Your task to perform on an android device: set the stopwatch Image 0: 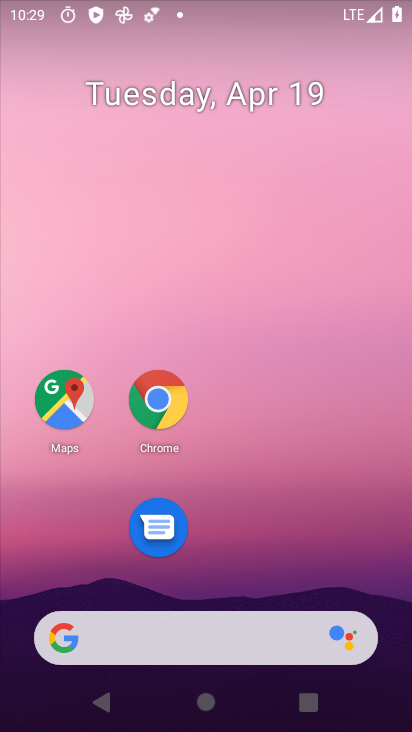
Step 0: drag from (263, 669) to (322, 226)
Your task to perform on an android device: set the stopwatch Image 1: 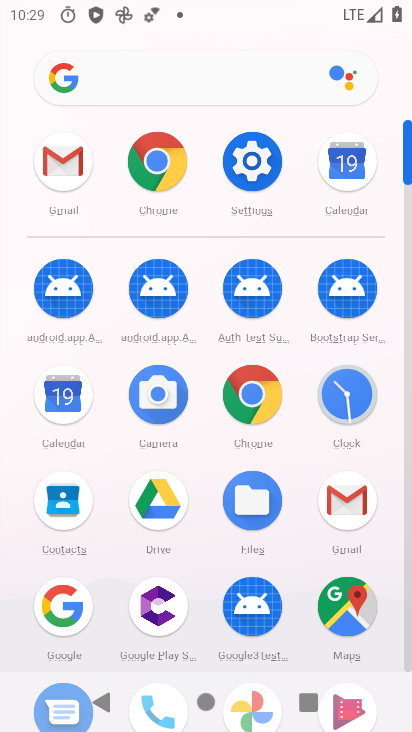
Step 1: click (351, 384)
Your task to perform on an android device: set the stopwatch Image 2: 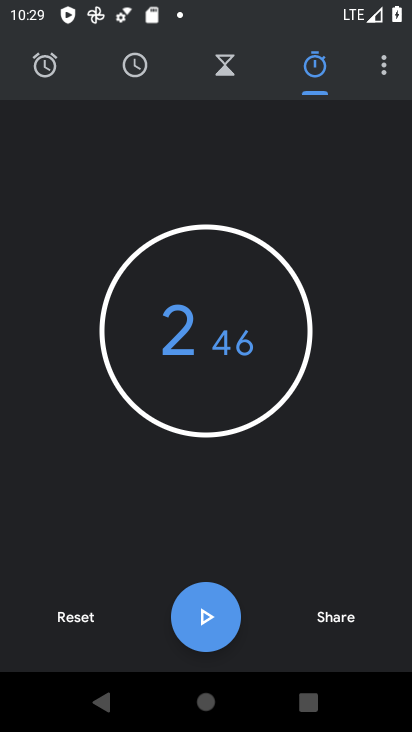
Step 2: click (192, 609)
Your task to perform on an android device: set the stopwatch Image 3: 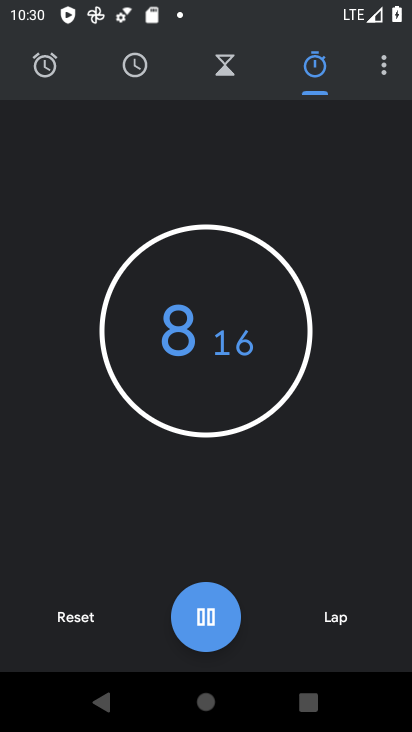
Step 3: task complete